Your task to perform on an android device: turn notification dots off Image 0: 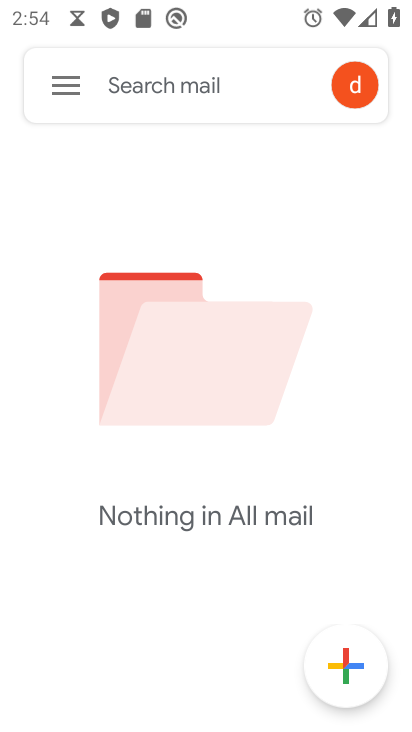
Step 0: press home button
Your task to perform on an android device: turn notification dots off Image 1: 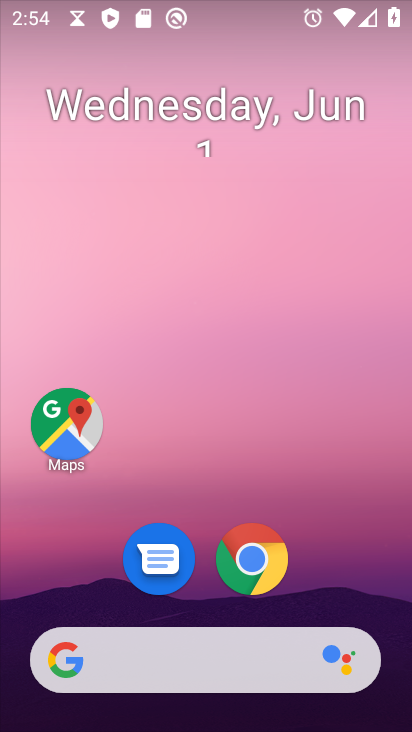
Step 1: drag from (321, 529) to (369, 36)
Your task to perform on an android device: turn notification dots off Image 2: 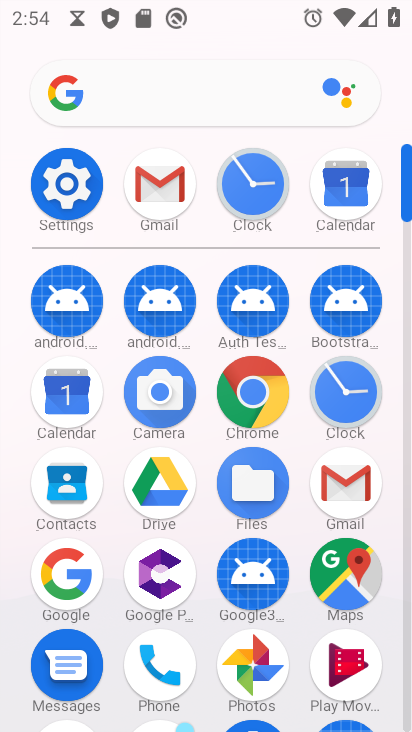
Step 2: click (69, 175)
Your task to perform on an android device: turn notification dots off Image 3: 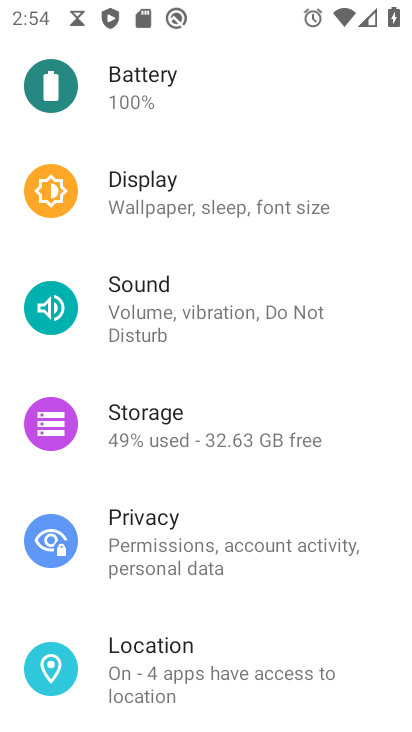
Step 3: drag from (178, 208) to (213, 601)
Your task to perform on an android device: turn notification dots off Image 4: 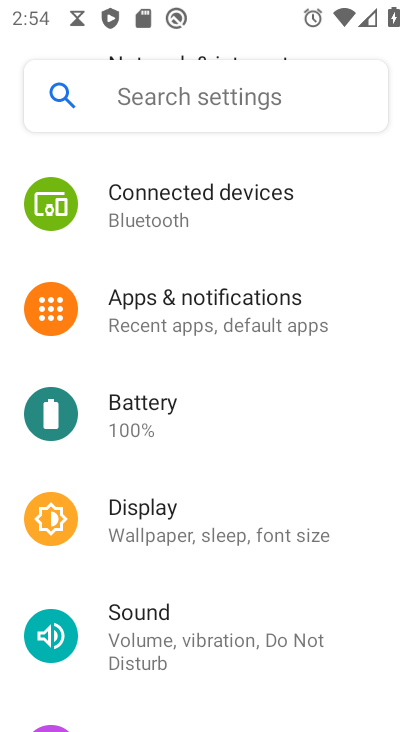
Step 4: click (195, 316)
Your task to perform on an android device: turn notification dots off Image 5: 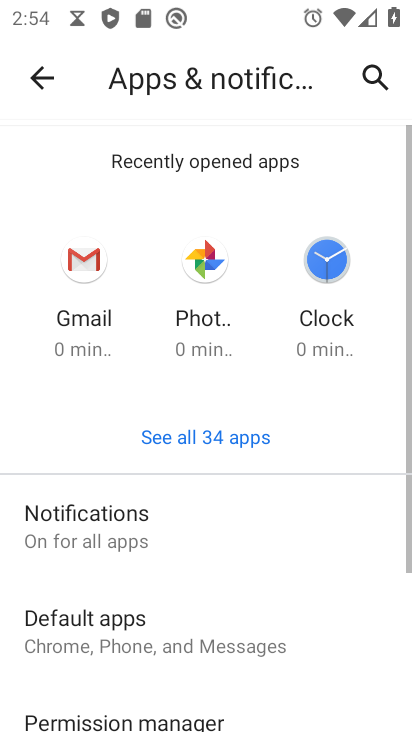
Step 5: click (124, 521)
Your task to perform on an android device: turn notification dots off Image 6: 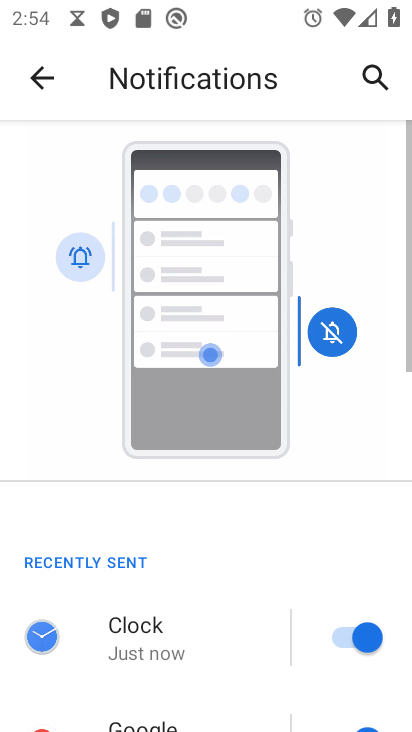
Step 6: drag from (266, 547) to (307, 108)
Your task to perform on an android device: turn notification dots off Image 7: 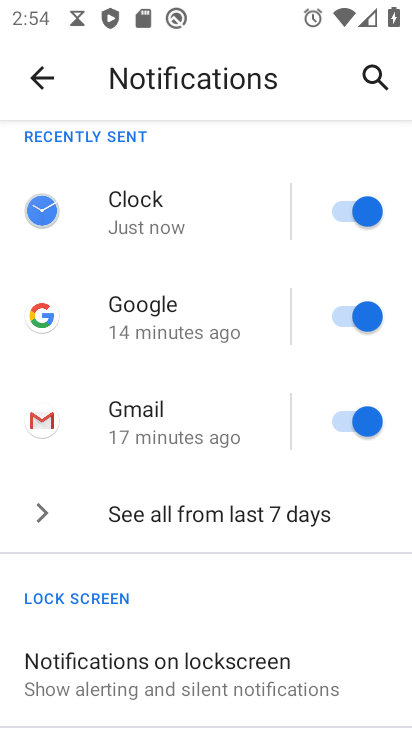
Step 7: drag from (242, 507) to (253, 132)
Your task to perform on an android device: turn notification dots off Image 8: 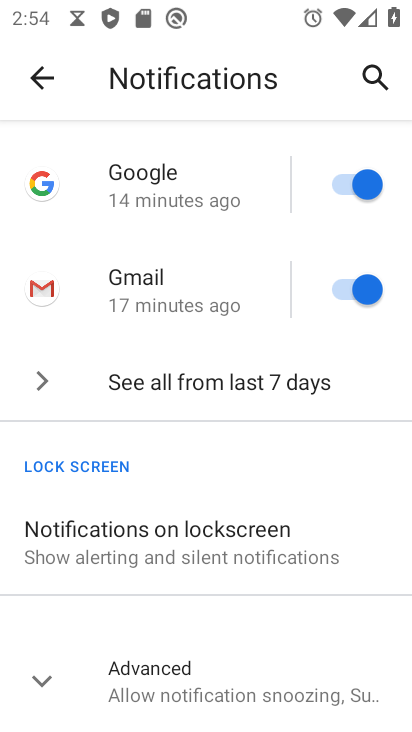
Step 8: click (216, 691)
Your task to perform on an android device: turn notification dots off Image 9: 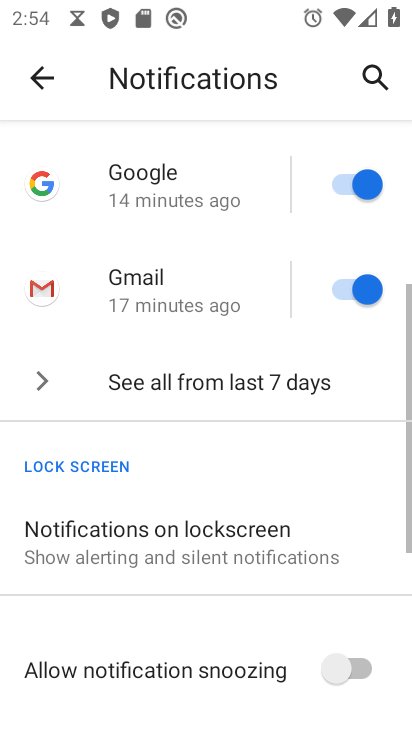
Step 9: drag from (221, 671) to (306, 171)
Your task to perform on an android device: turn notification dots off Image 10: 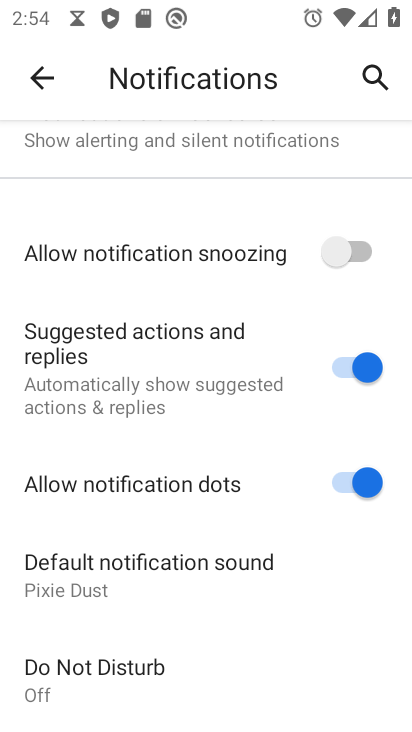
Step 10: click (364, 489)
Your task to perform on an android device: turn notification dots off Image 11: 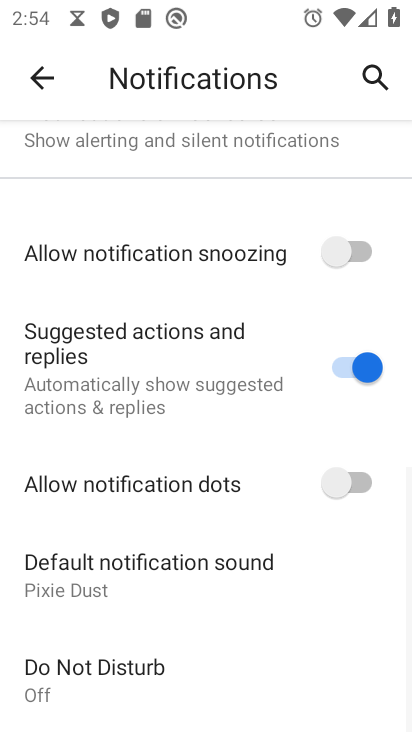
Step 11: task complete